Your task to perform on an android device: toggle pop-ups in chrome Image 0: 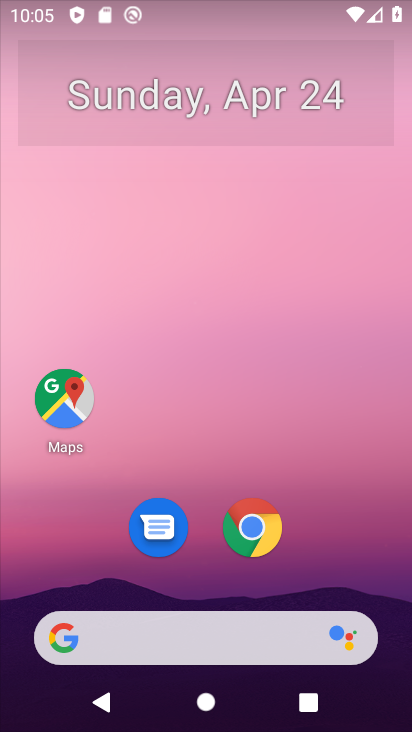
Step 0: click (265, 537)
Your task to perform on an android device: toggle pop-ups in chrome Image 1: 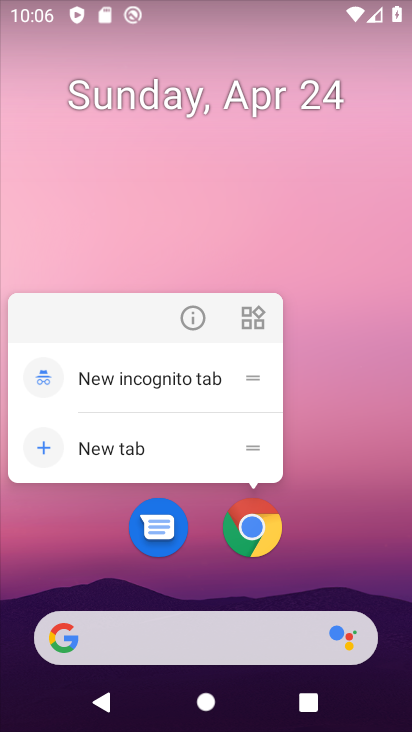
Step 1: click (256, 533)
Your task to perform on an android device: toggle pop-ups in chrome Image 2: 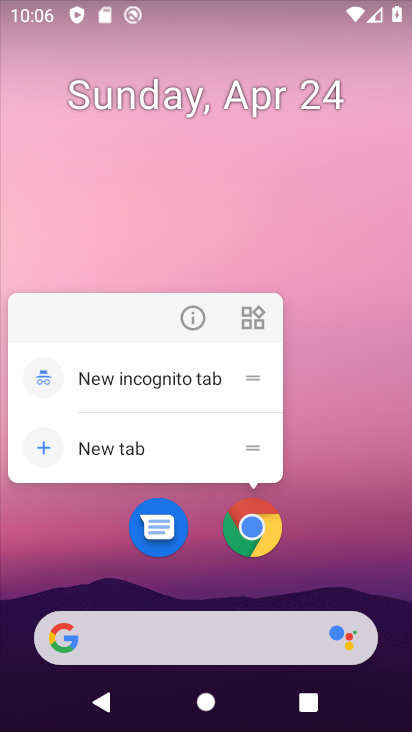
Step 2: click (253, 523)
Your task to perform on an android device: toggle pop-ups in chrome Image 3: 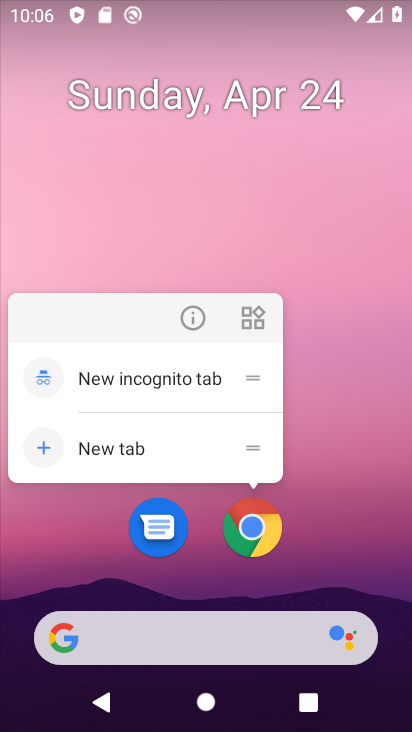
Step 3: click (262, 518)
Your task to perform on an android device: toggle pop-ups in chrome Image 4: 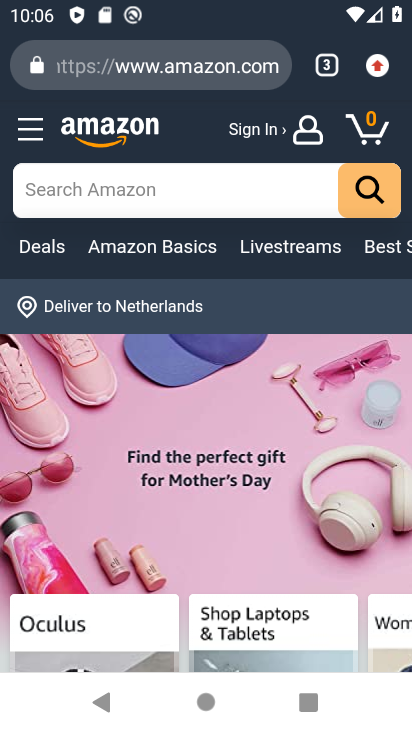
Step 4: drag from (373, 66) to (177, 574)
Your task to perform on an android device: toggle pop-ups in chrome Image 5: 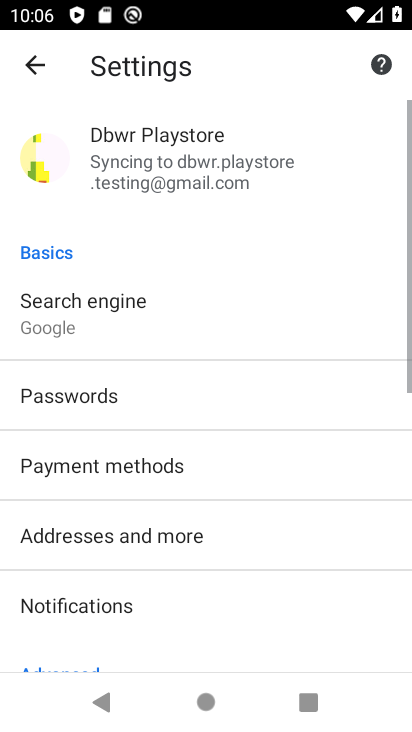
Step 5: drag from (135, 584) to (275, 145)
Your task to perform on an android device: toggle pop-ups in chrome Image 6: 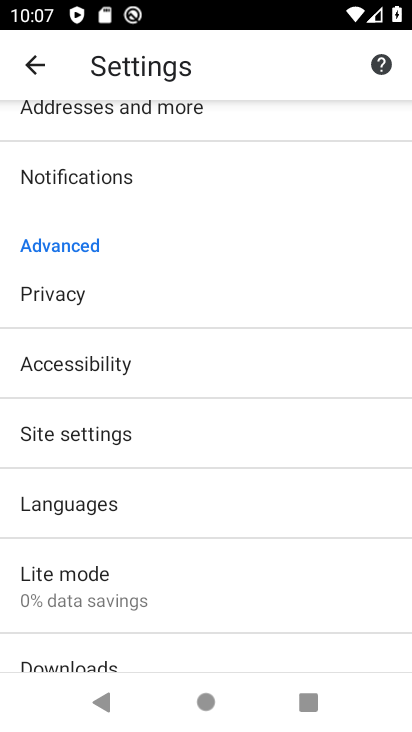
Step 6: click (115, 451)
Your task to perform on an android device: toggle pop-ups in chrome Image 7: 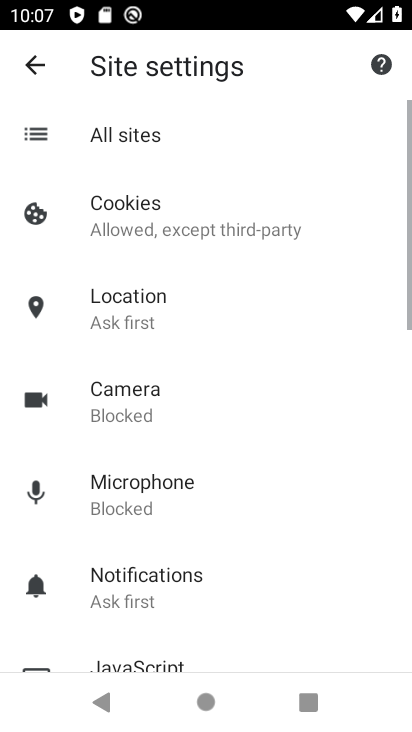
Step 7: drag from (182, 573) to (247, 109)
Your task to perform on an android device: toggle pop-ups in chrome Image 8: 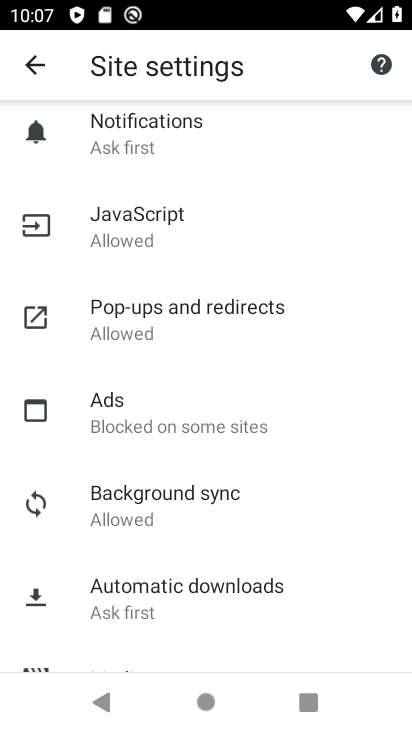
Step 8: click (163, 320)
Your task to perform on an android device: toggle pop-ups in chrome Image 9: 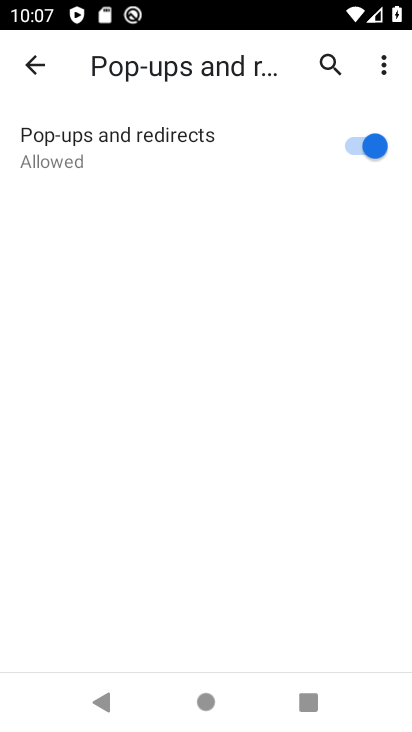
Step 9: task complete